Your task to perform on an android device: Go to Yahoo.com Image 0: 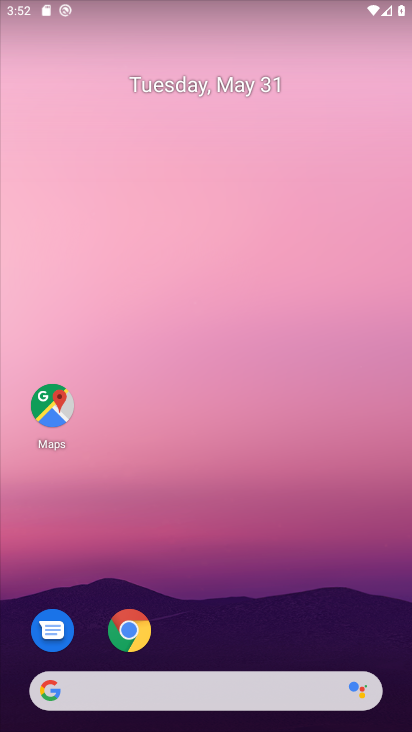
Step 0: drag from (257, 565) to (198, 6)
Your task to perform on an android device: Go to Yahoo.com Image 1: 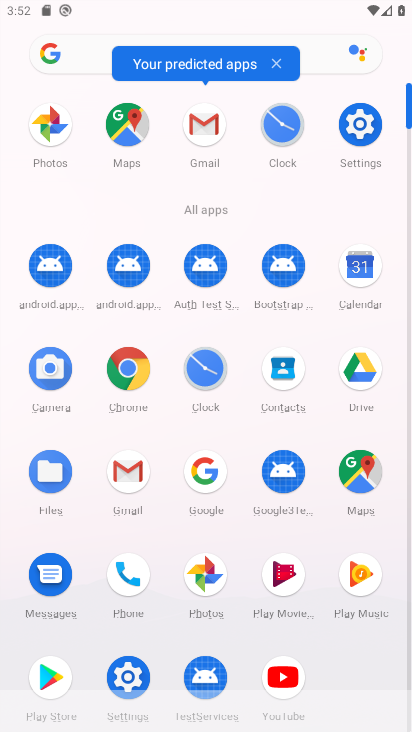
Step 1: drag from (12, 577) to (11, 163)
Your task to perform on an android device: Go to Yahoo.com Image 2: 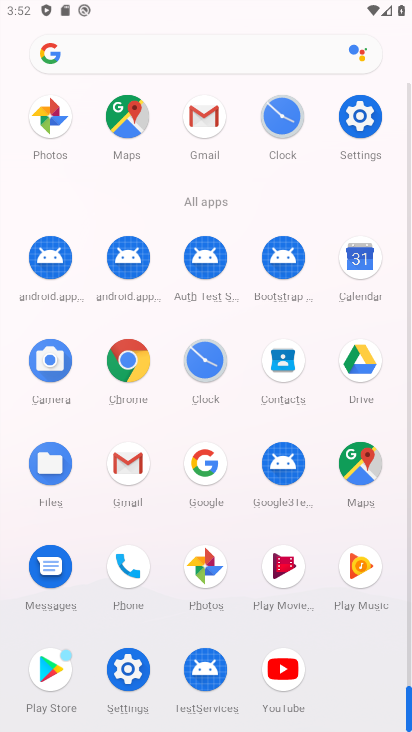
Step 2: click (128, 361)
Your task to perform on an android device: Go to Yahoo.com Image 3: 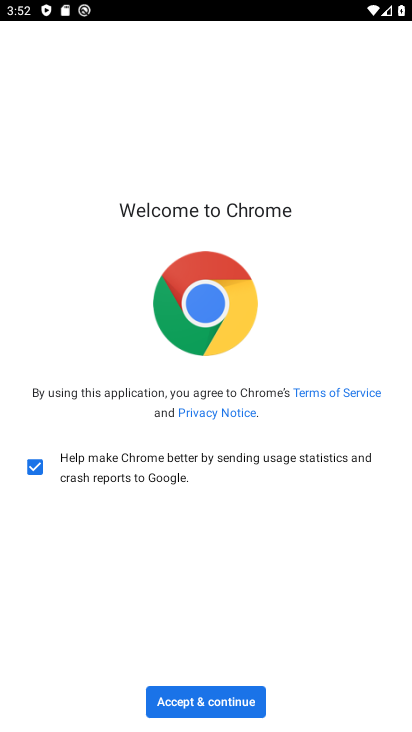
Step 3: click (205, 691)
Your task to perform on an android device: Go to Yahoo.com Image 4: 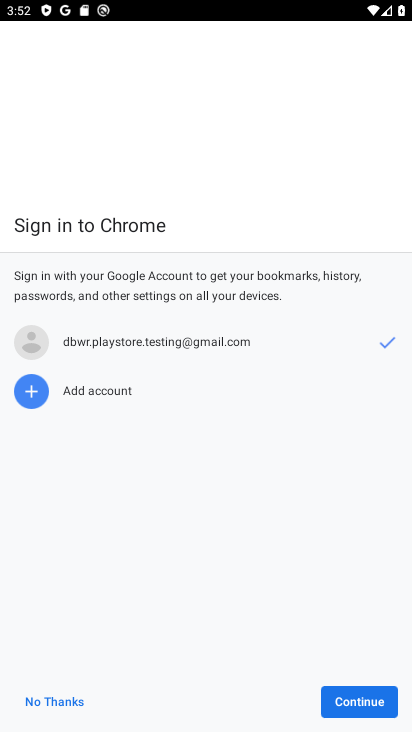
Step 4: click (349, 688)
Your task to perform on an android device: Go to Yahoo.com Image 5: 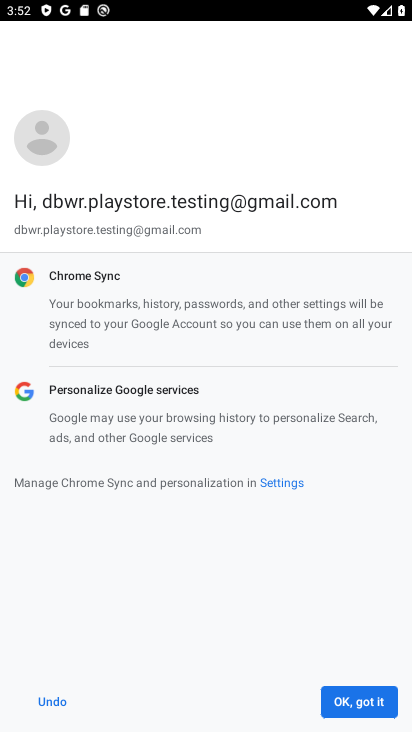
Step 5: click (356, 700)
Your task to perform on an android device: Go to Yahoo.com Image 6: 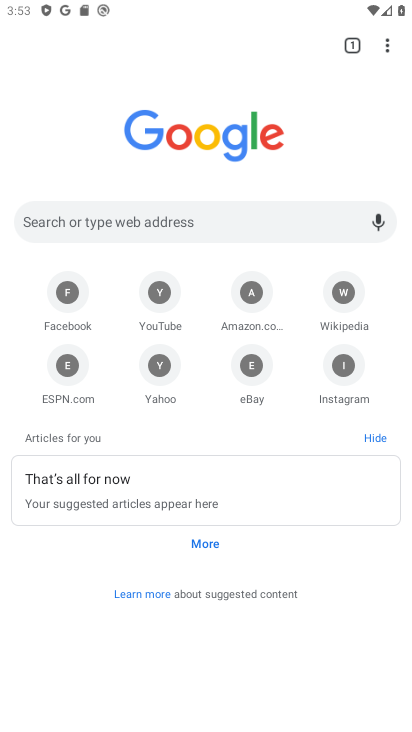
Step 6: click (164, 377)
Your task to perform on an android device: Go to Yahoo.com Image 7: 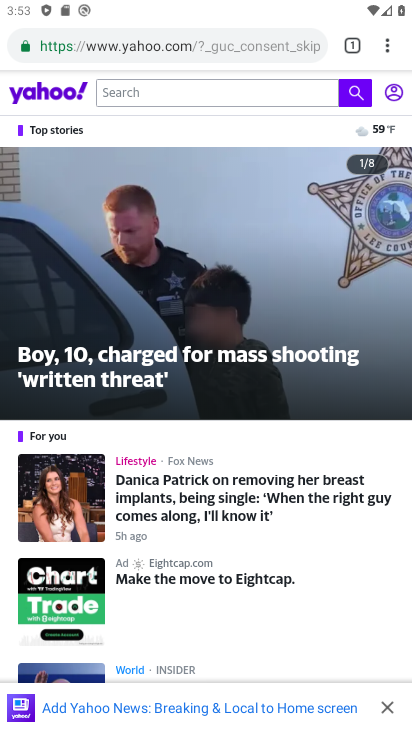
Step 7: task complete